Your task to perform on an android device: When is my next meeting? Image 0: 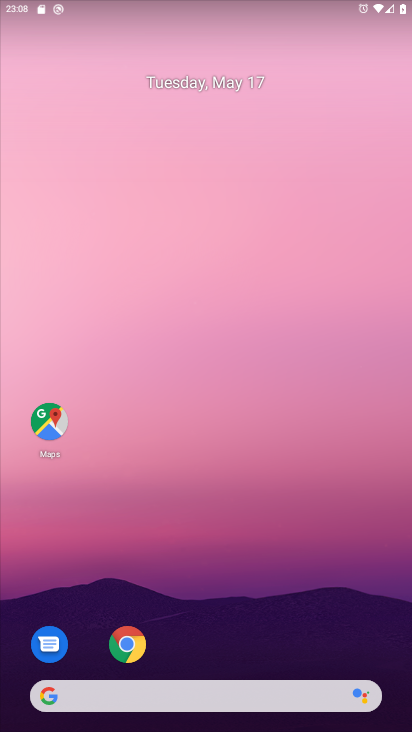
Step 0: press home button
Your task to perform on an android device: When is my next meeting? Image 1: 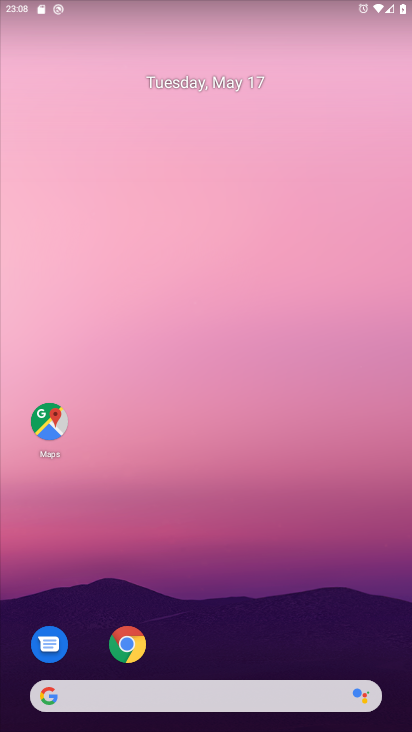
Step 1: drag from (217, 654) to (278, 161)
Your task to perform on an android device: When is my next meeting? Image 2: 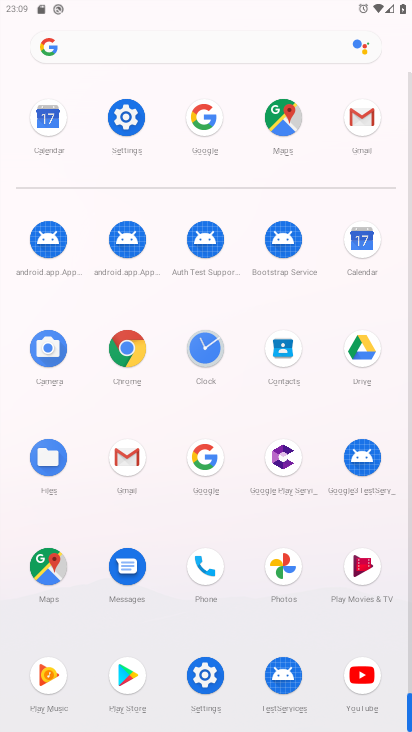
Step 2: click (360, 238)
Your task to perform on an android device: When is my next meeting? Image 3: 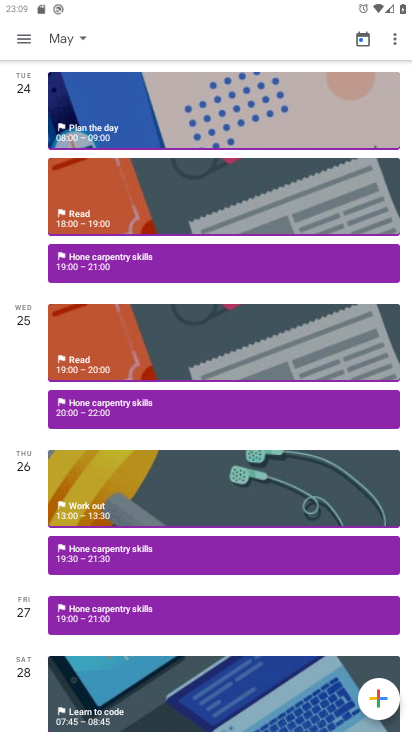
Step 3: click (20, 31)
Your task to perform on an android device: When is my next meeting? Image 4: 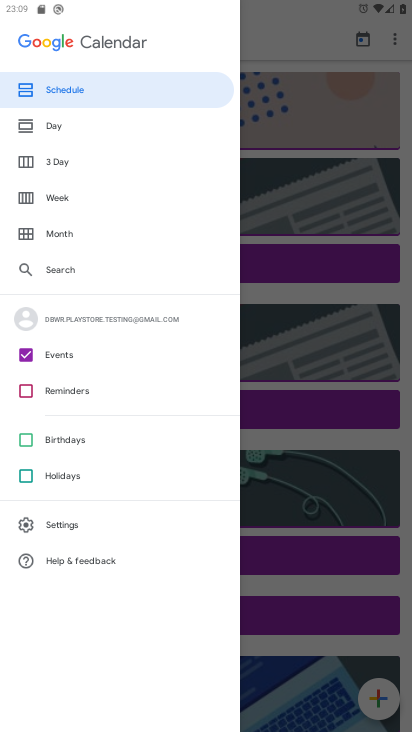
Step 4: click (63, 76)
Your task to perform on an android device: When is my next meeting? Image 5: 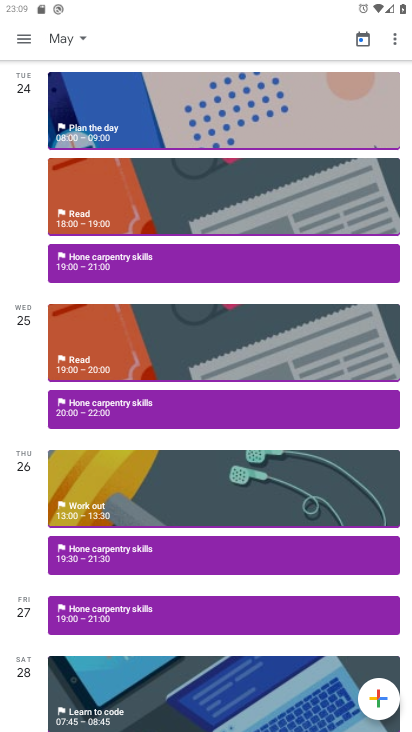
Step 5: task complete